Your task to perform on an android device: turn off improve location accuracy Image 0: 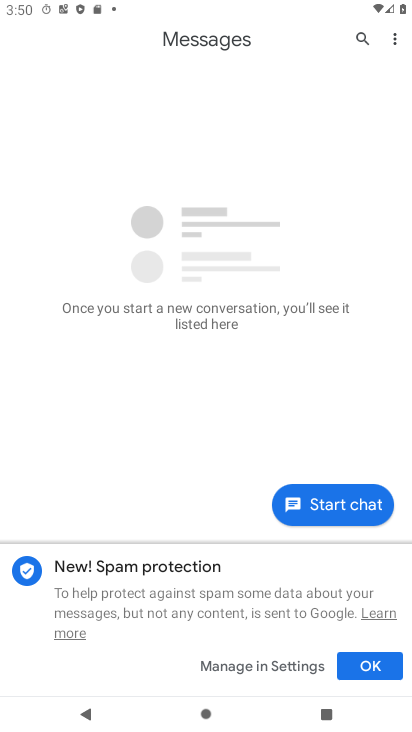
Step 0: press home button
Your task to perform on an android device: turn off improve location accuracy Image 1: 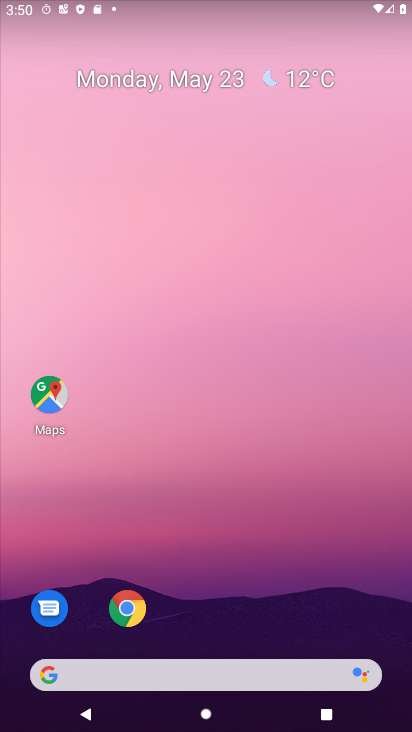
Step 1: drag from (212, 372) to (179, 54)
Your task to perform on an android device: turn off improve location accuracy Image 2: 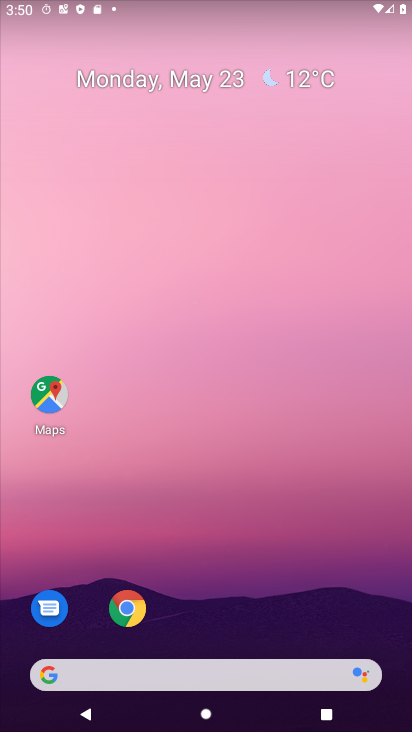
Step 2: drag from (244, 300) to (201, 30)
Your task to perform on an android device: turn off improve location accuracy Image 3: 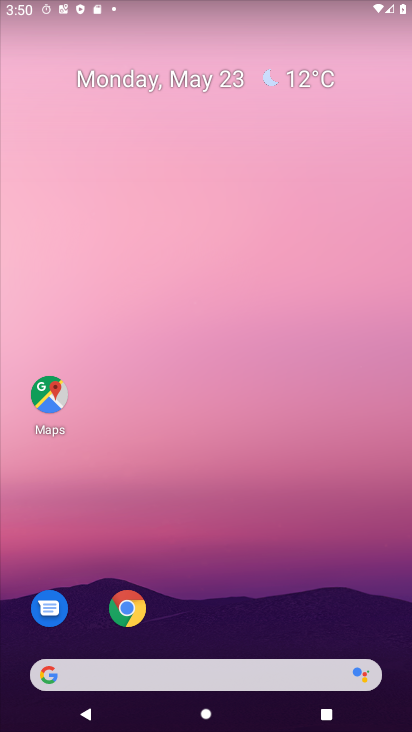
Step 3: drag from (266, 603) to (179, 10)
Your task to perform on an android device: turn off improve location accuracy Image 4: 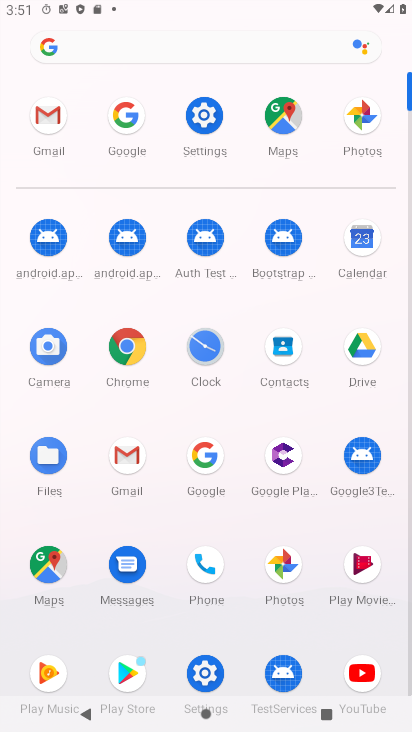
Step 4: click (198, 116)
Your task to perform on an android device: turn off improve location accuracy Image 5: 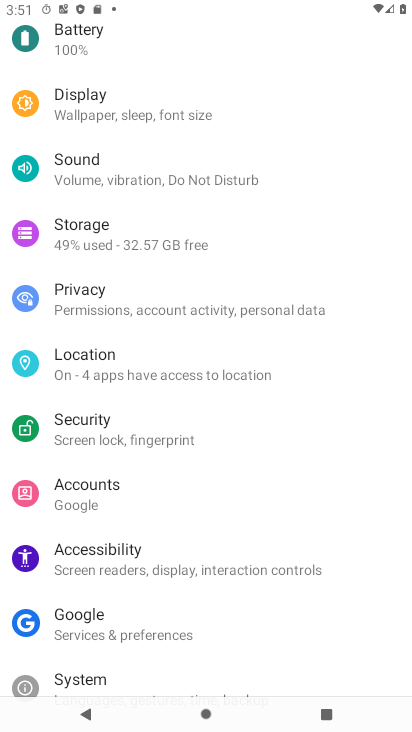
Step 5: click (162, 362)
Your task to perform on an android device: turn off improve location accuracy Image 6: 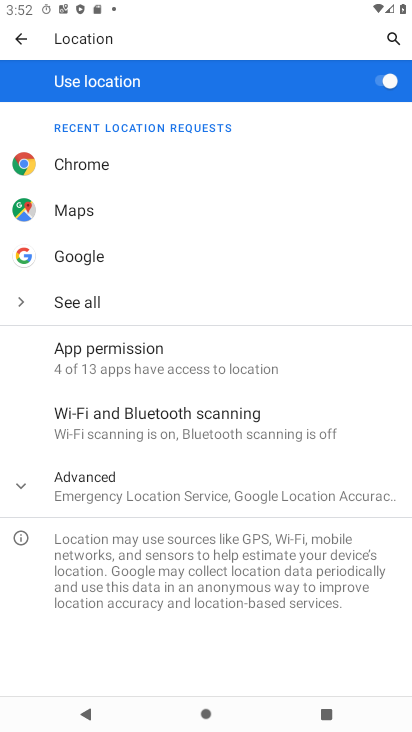
Step 6: click (199, 478)
Your task to perform on an android device: turn off improve location accuracy Image 7: 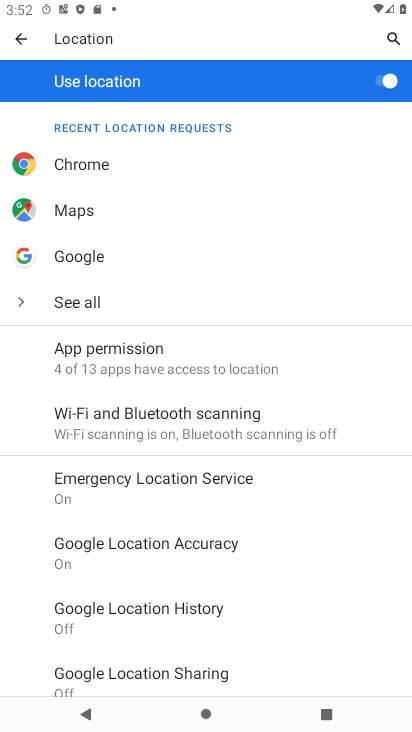
Step 7: click (243, 541)
Your task to perform on an android device: turn off improve location accuracy Image 8: 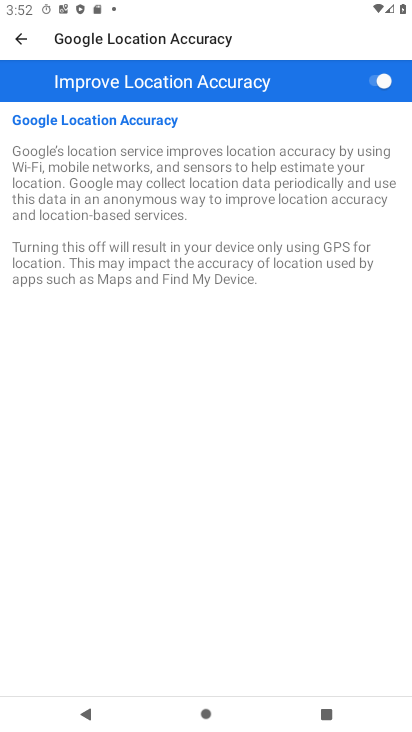
Step 8: click (376, 81)
Your task to perform on an android device: turn off improve location accuracy Image 9: 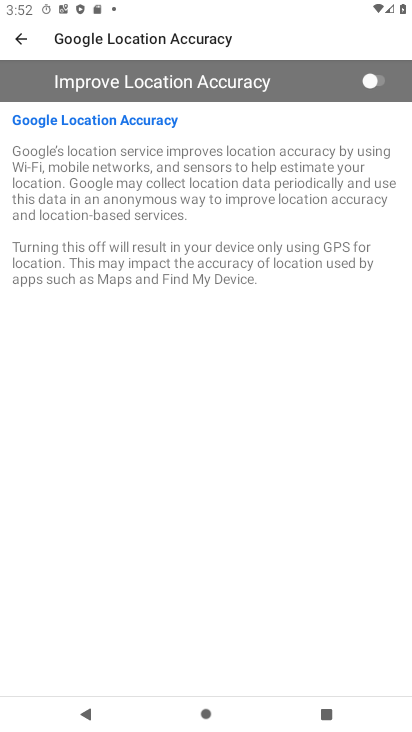
Step 9: task complete